Your task to perform on an android device: Open network settings Image 0: 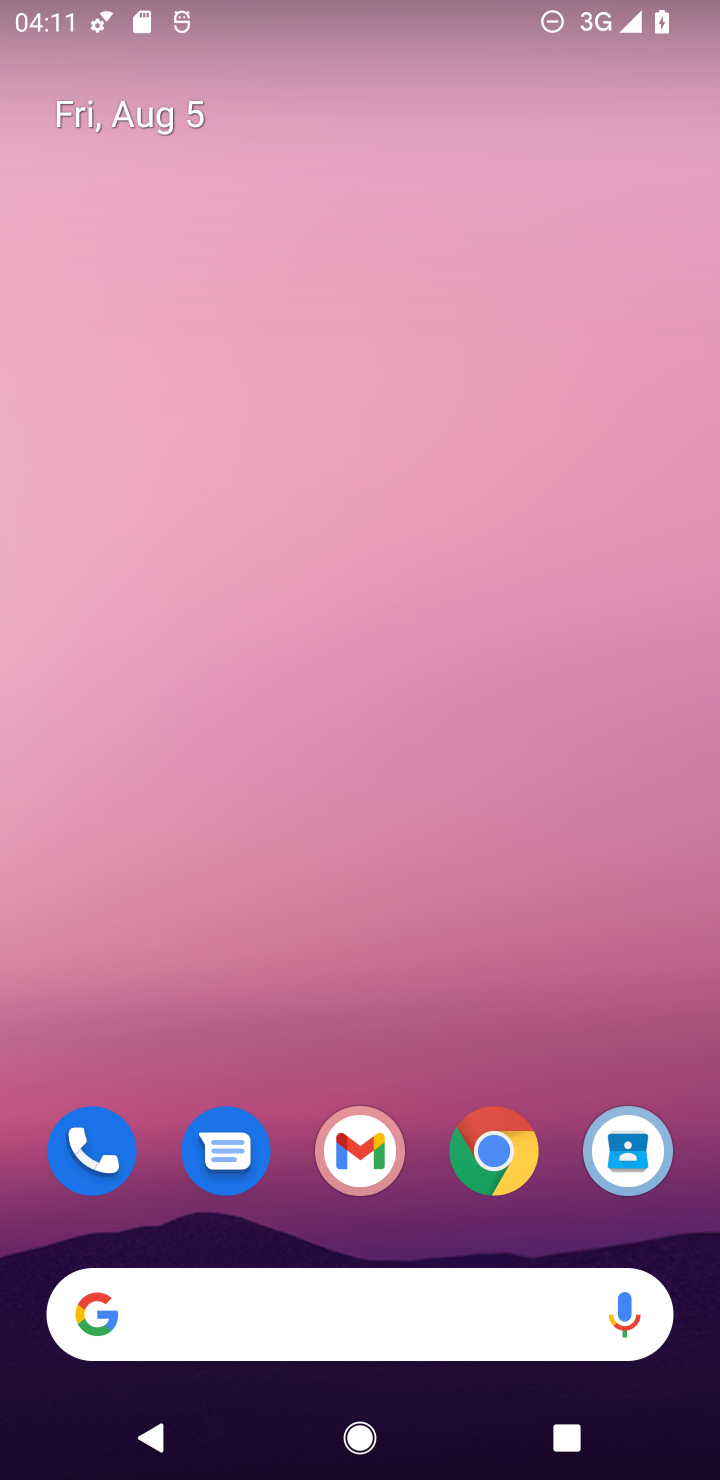
Step 0: drag from (469, 1078) to (338, 196)
Your task to perform on an android device: Open network settings Image 1: 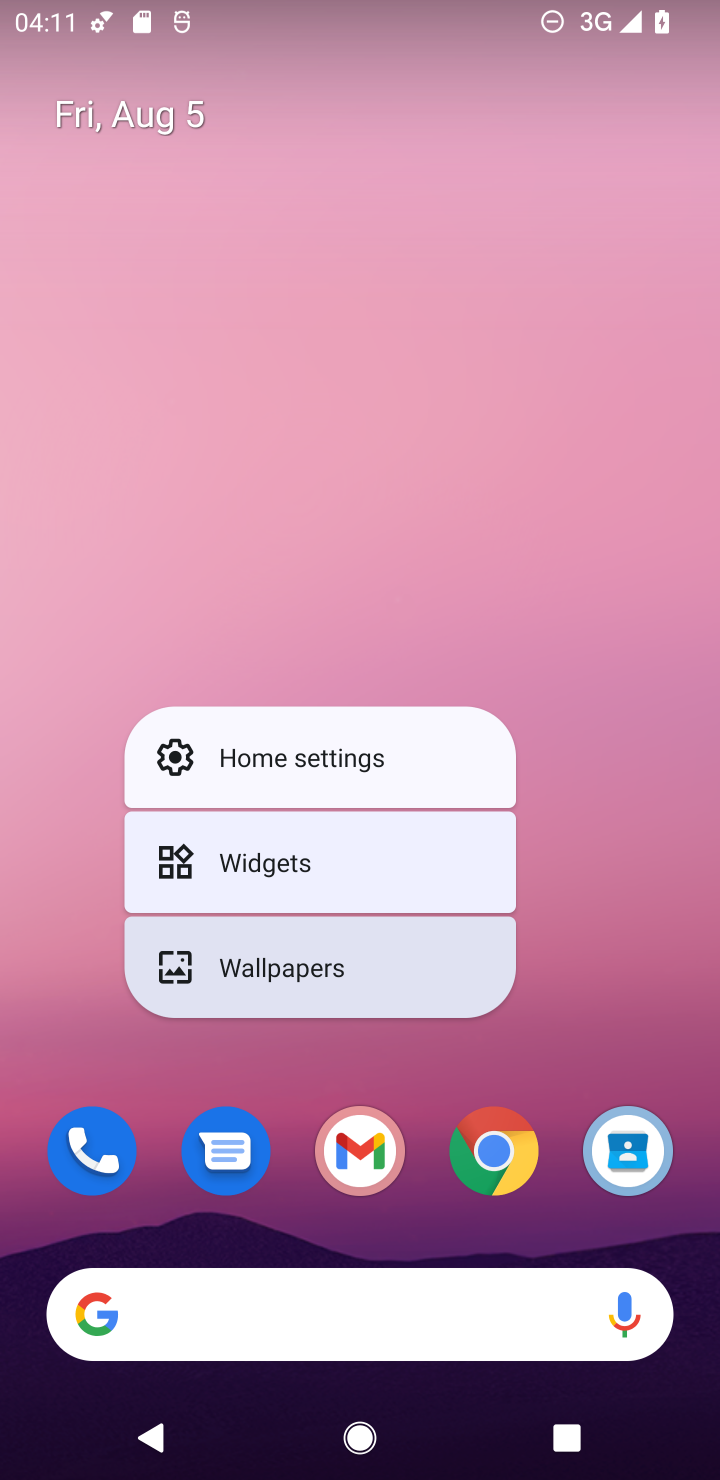
Step 1: click (368, 1057)
Your task to perform on an android device: Open network settings Image 2: 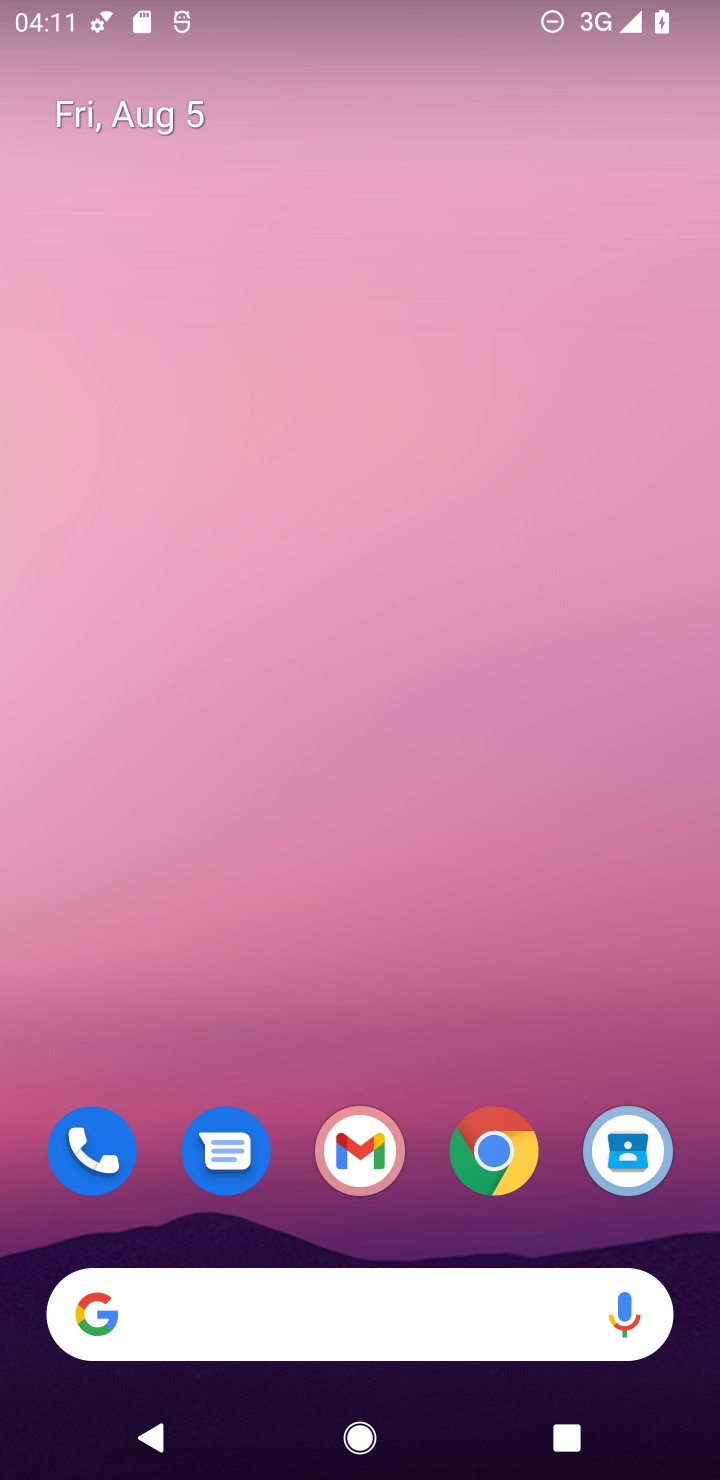
Step 2: drag from (368, 1057) to (206, 6)
Your task to perform on an android device: Open network settings Image 3: 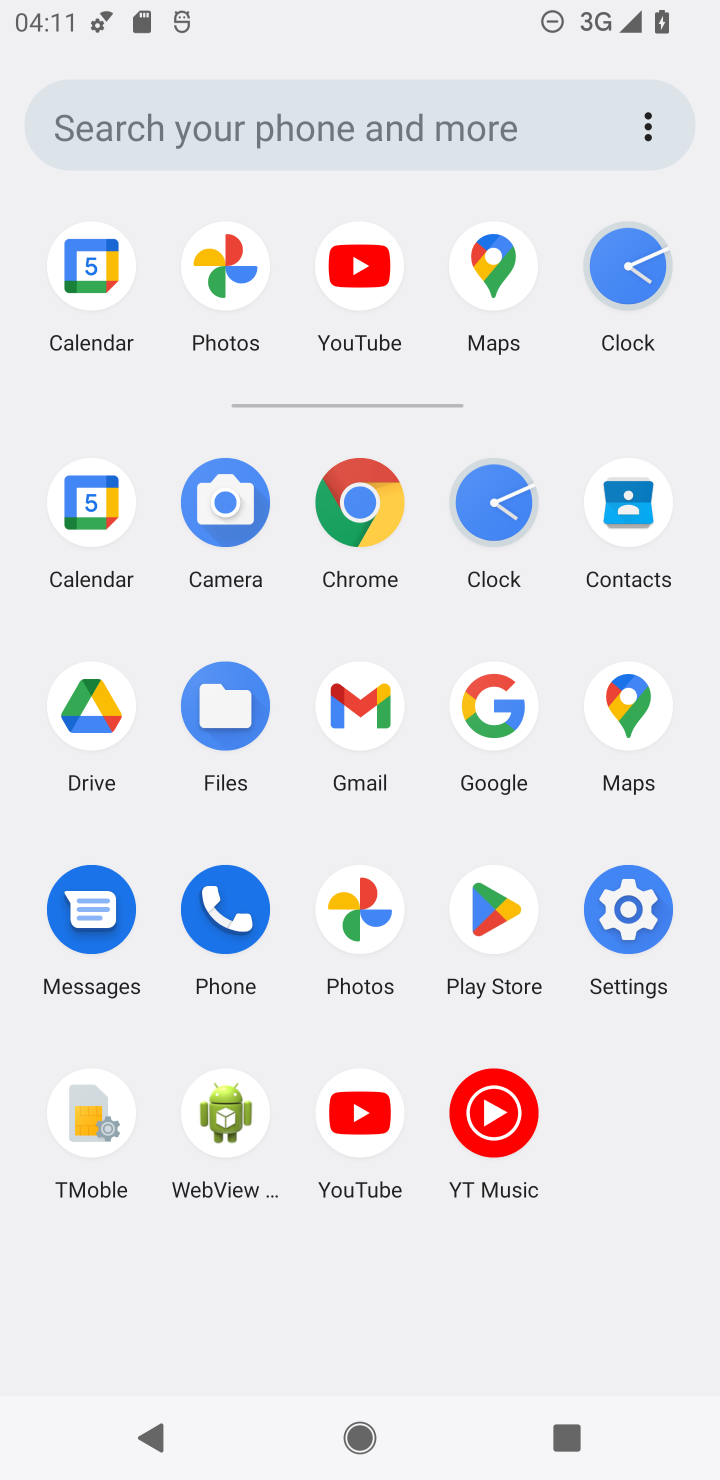
Step 3: click (640, 925)
Your task to perform on an android device: Open network settings Image 4: 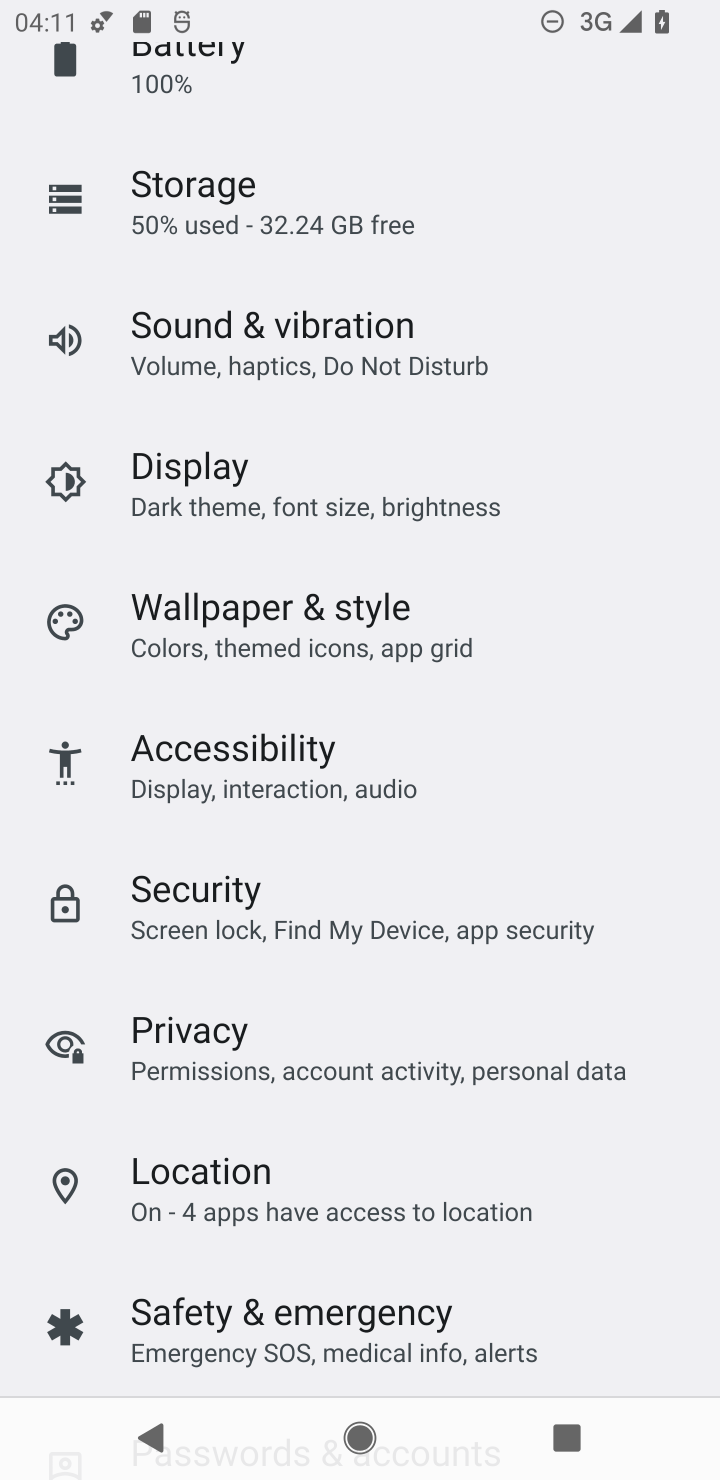
Step 4: drag from (215, 296) to (350, 858)
Your task to perform on an android device: Open network settings Image 5: 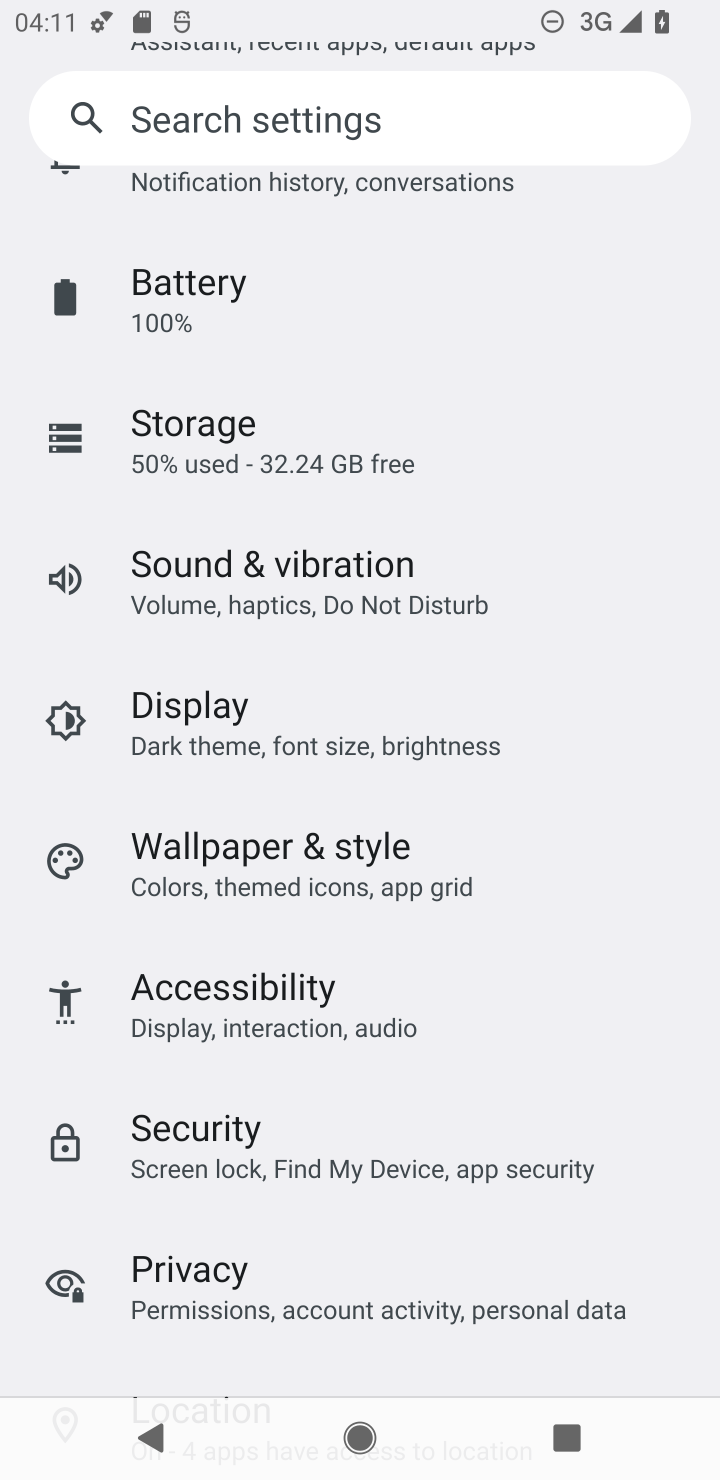
Step 5: drag from (386, 251) to (597, 1473)
Your task to perform on an android device: Open network settings Image 6: 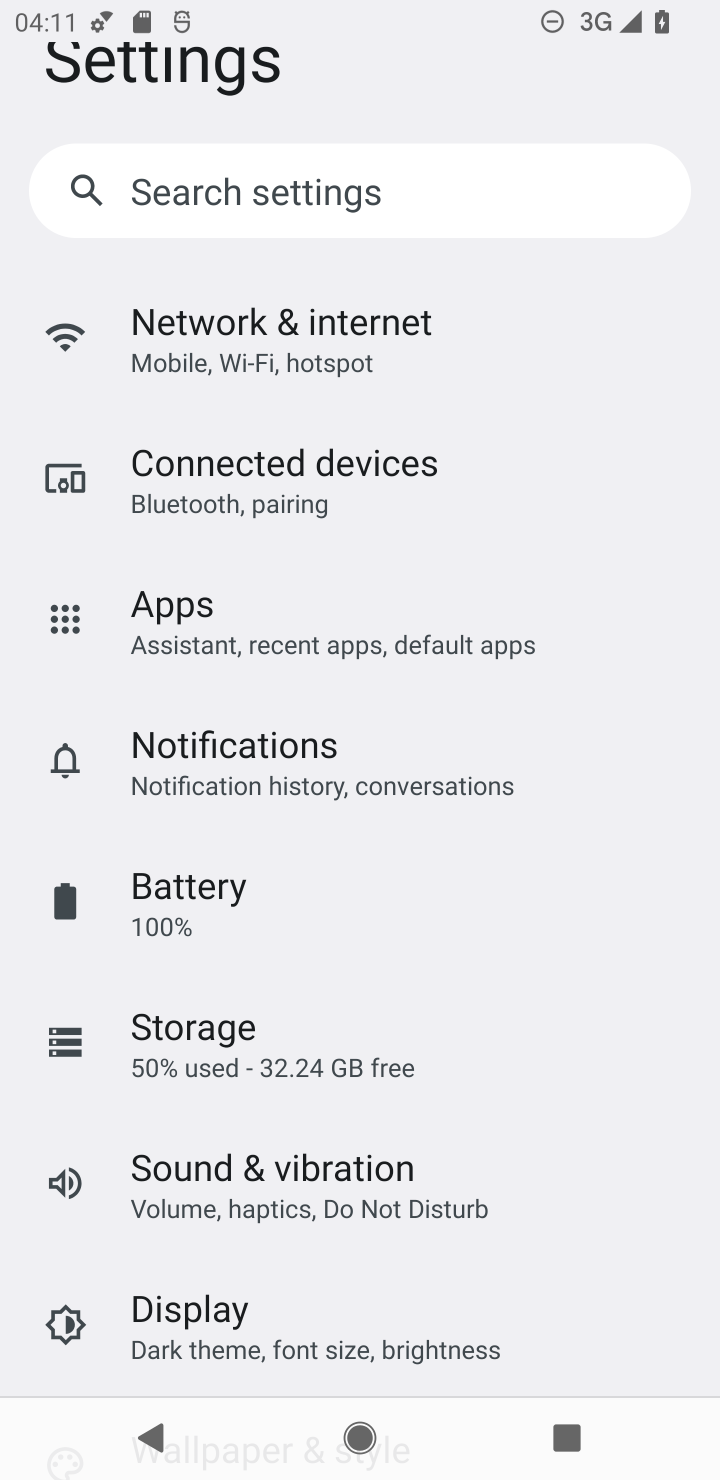
Step 6: drag from (486, 499) to (670, 1281)
Your task to perform on an android device: Open network settings Image 7: 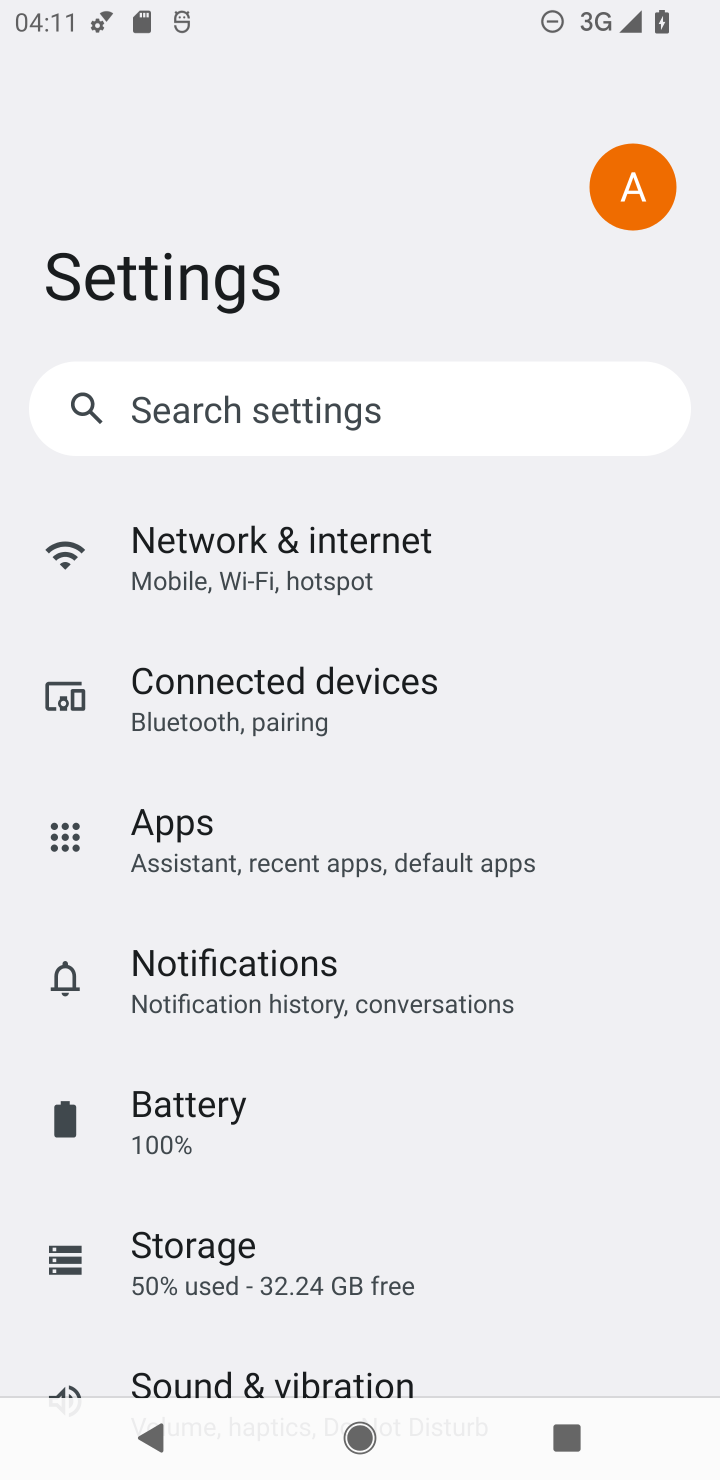
Step 7: click (447, 540)
Your task to perform on an android device: Open network settings Image 8: 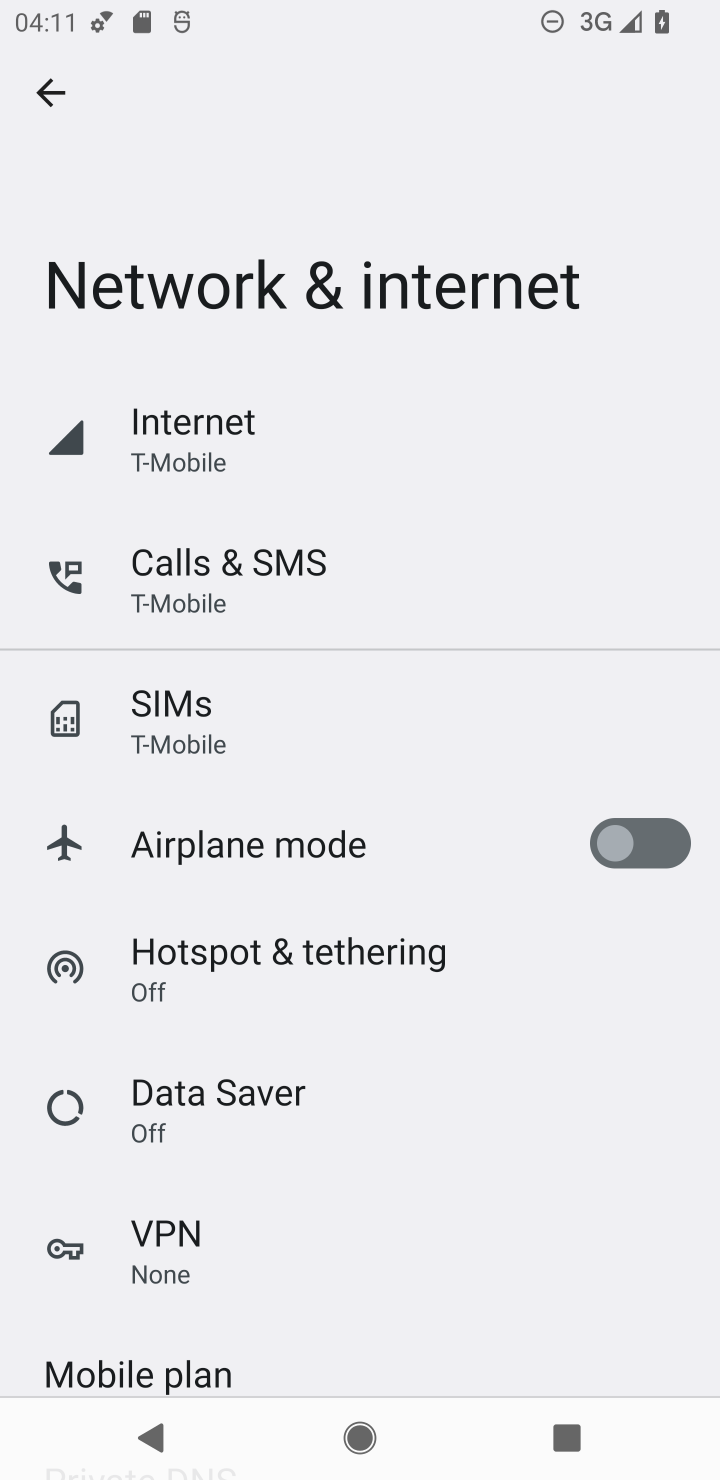
Step 8: task complete